Your task to perform on an android device: see tabs open on other devices in the chrome app Image 0: 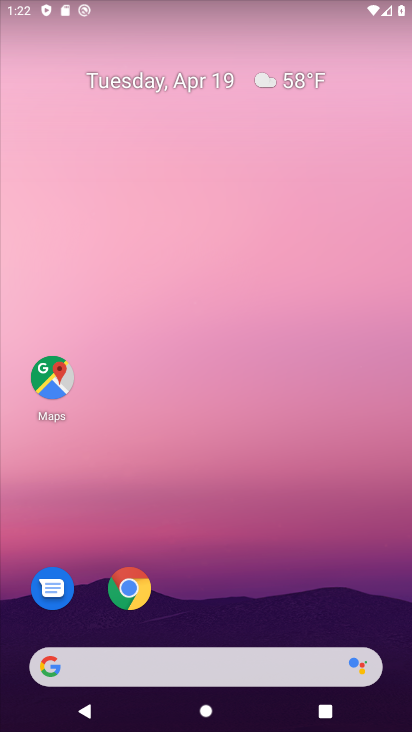
Step 0: click (144, 590)
Your task to perform on an android device: see tabs open on other devices in the chrome app Image 1: 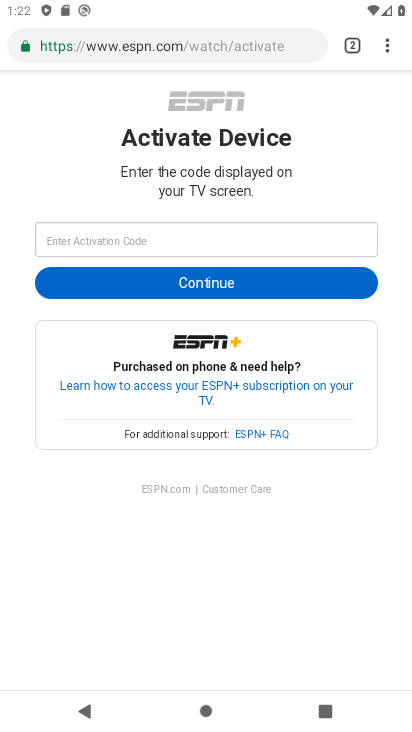
Step 1: click (384, 42)
Your task to perform on an android device: see tabs open on other devices in the chrome app Image 2: 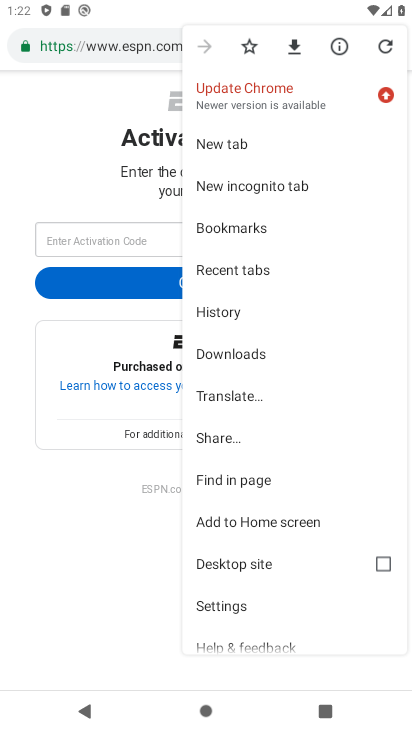
Step 2: click (266, 265)
Your task to perform on an android device: see tabs open on other devices in the chrome app Image 3: 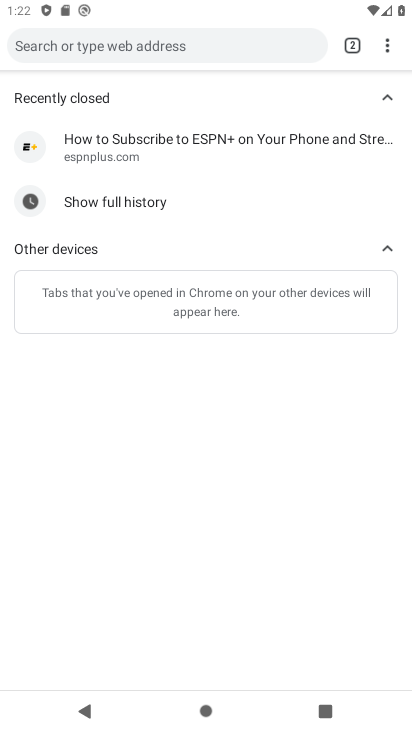
Step 3: task complete